Your task to perform on an android device: Open accessibility settings Image 0: 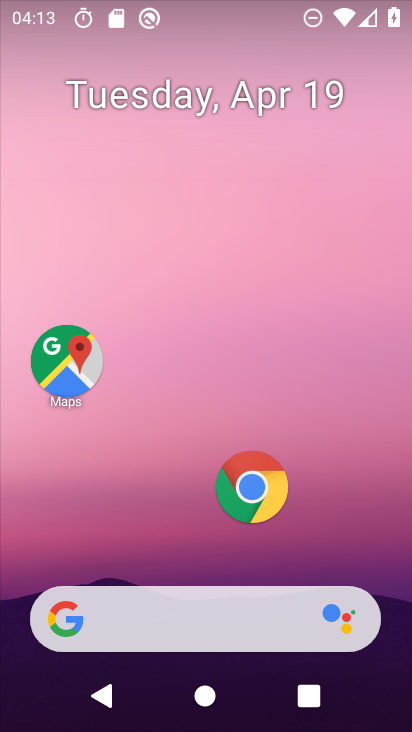
Step 0: drag from (174, 532) to (242, 32)
Your task to perform on an android device: Open accessibility settings Image 1: 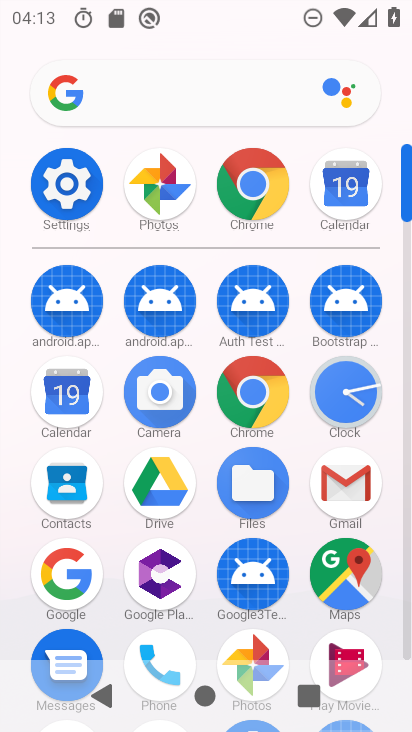
Step 1: click (74, 221)
Your task to perform on an android device: Open accessibility settings Image 2: 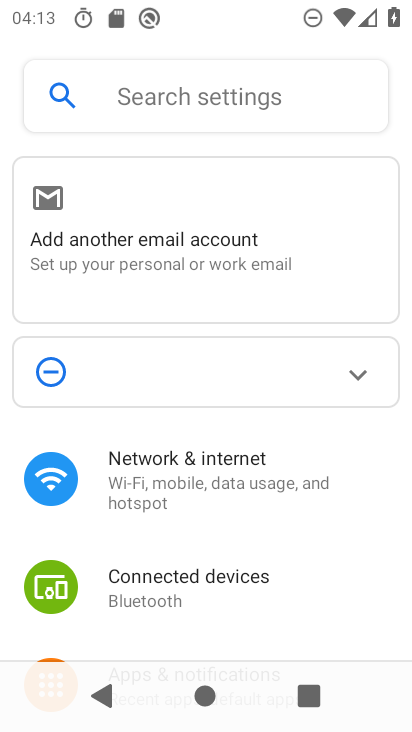
Step 2: drag from (222, 462) to (242, 43)
Your task to perform on an android device: Open accessibility settings Image 3: 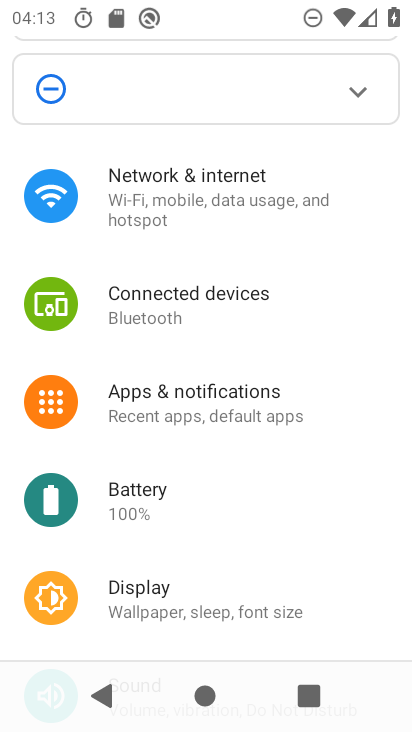
Step 3: drag from (195, 538) to (254, 3)
Your task to perform on an android device: Open accessibility settings Image 4: 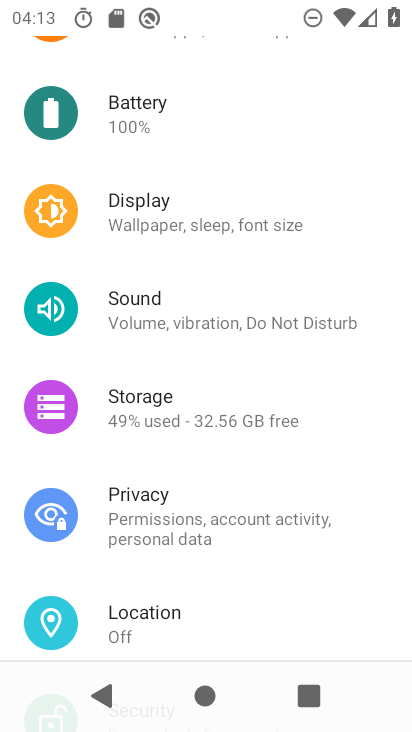
Step 4: drag from (171, 591) to (319, 13)
Your task to perform on an android device: Open accessibility settings Image 5: 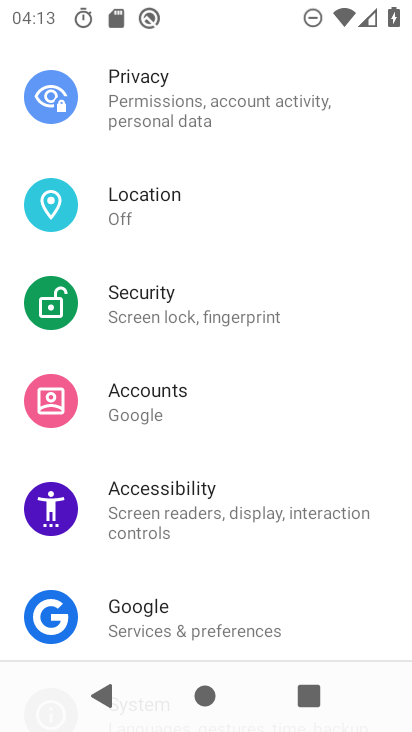
Step 5: click (177, 494)
Your task to perform on an android device: Open accessibility settings Image 6: 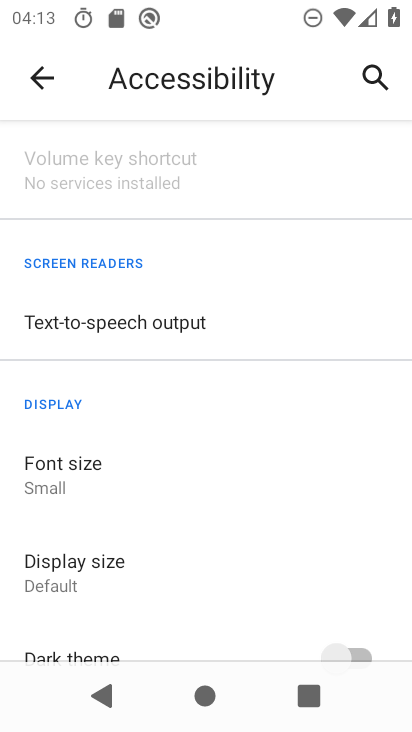
Step 6: task complete